Your task to perform on an android device: Add usb-a to the cart on target Image 0: 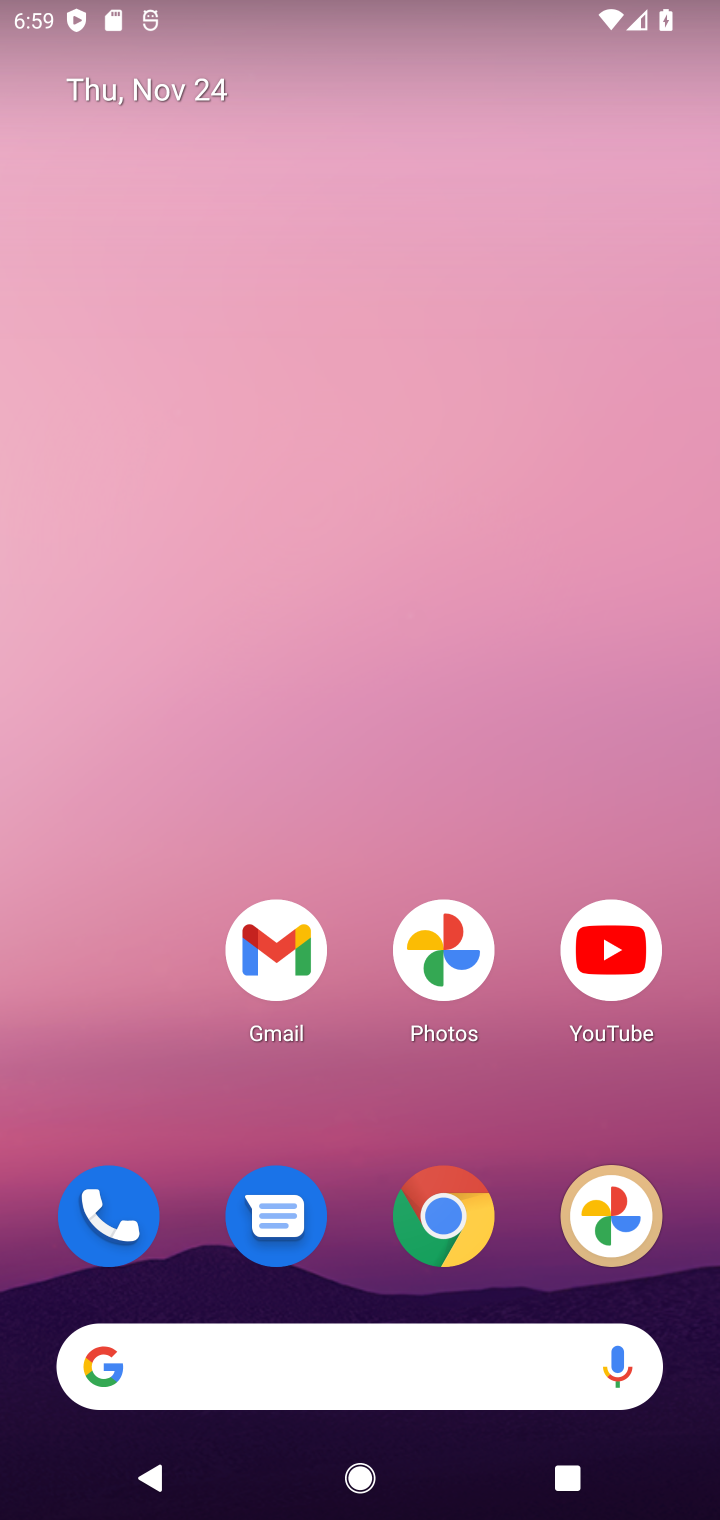
Step 0: click (435, 1221)
Your task to perform on an android device: Add usb-a to the cart on target Image 1: 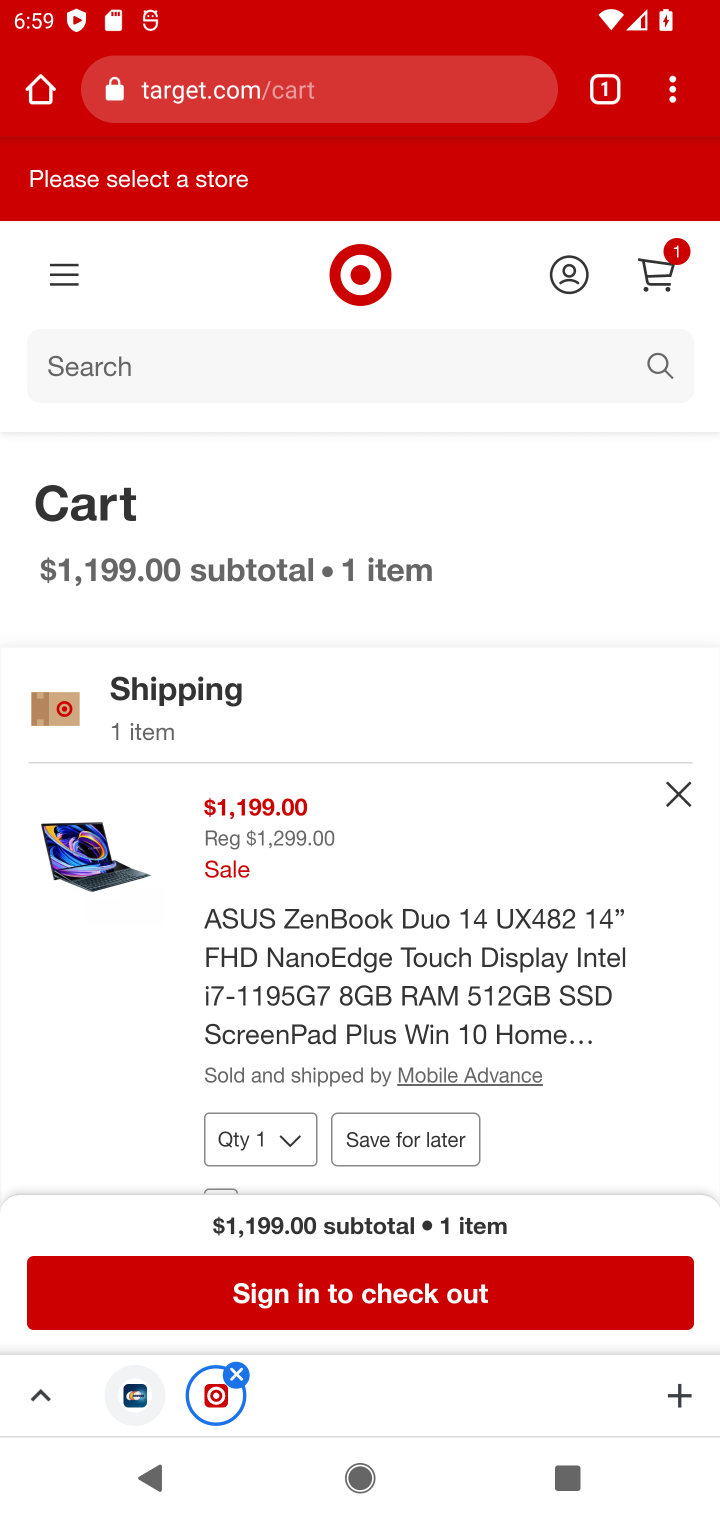
Step 1: click (357, 358)
Your task to perform on an android device: Add usb-a to the cart on target Image 2: 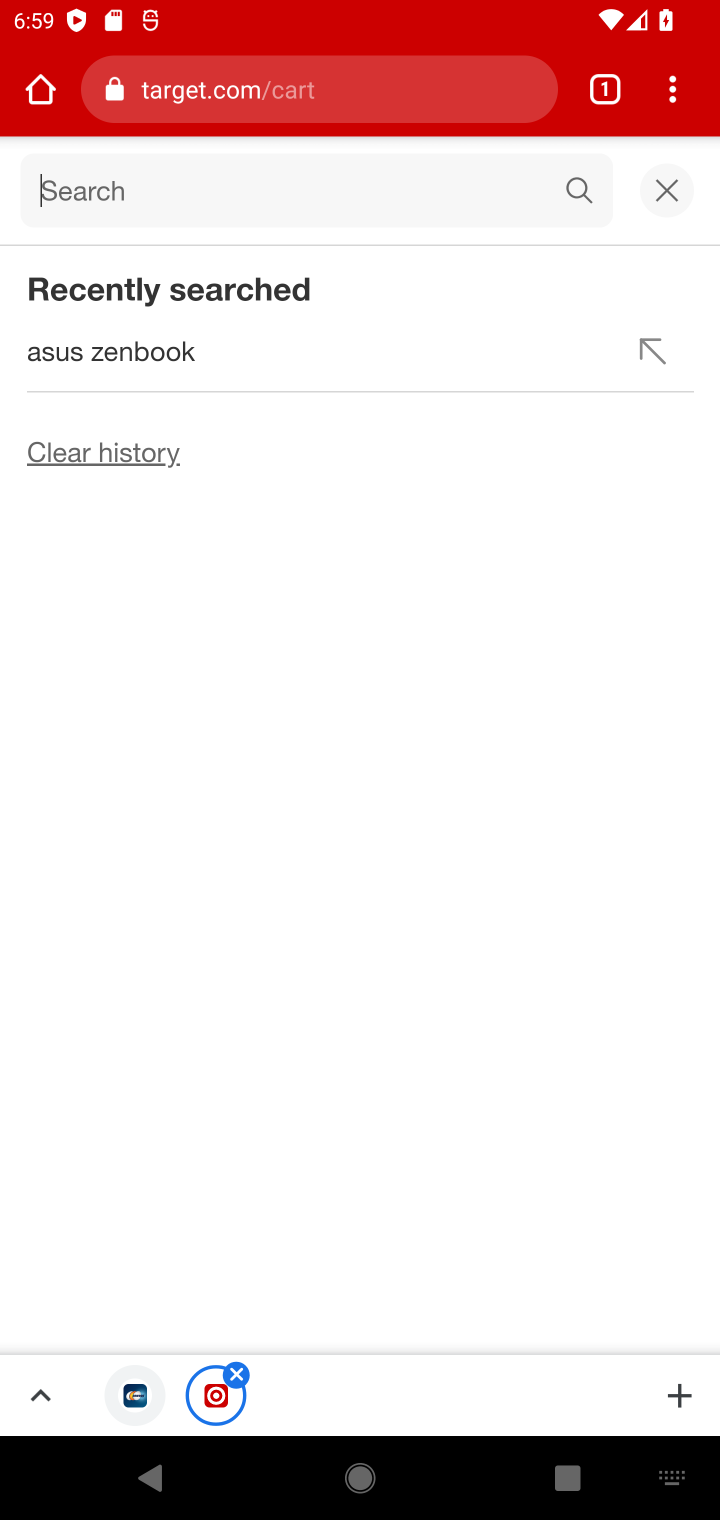
Step 2: type "usb-a"
Your task to perform on an android device: Add usb-a to the cart on target Image 3: 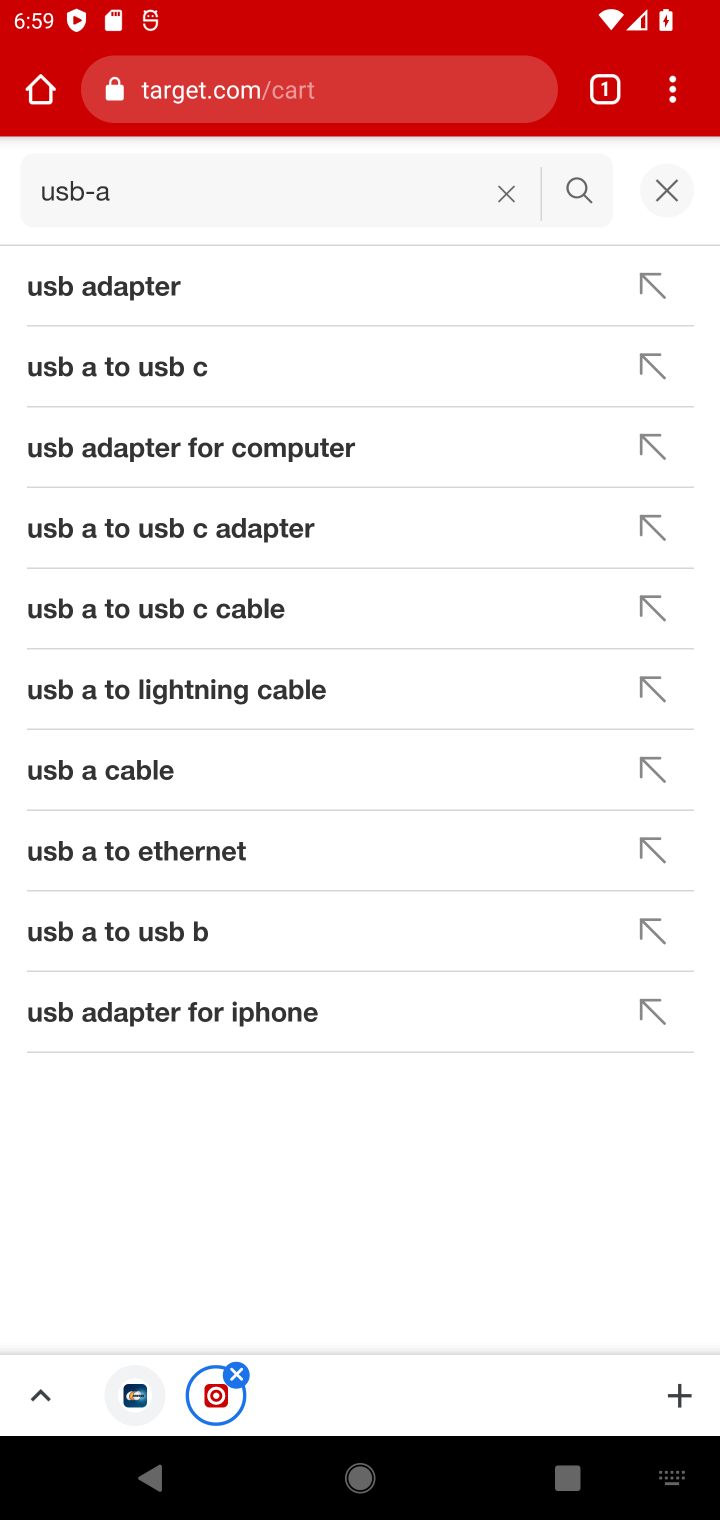
Step 3: click (116, 769)
Your task to perform on an android device: Add usb-a to the cart on target Image 4: 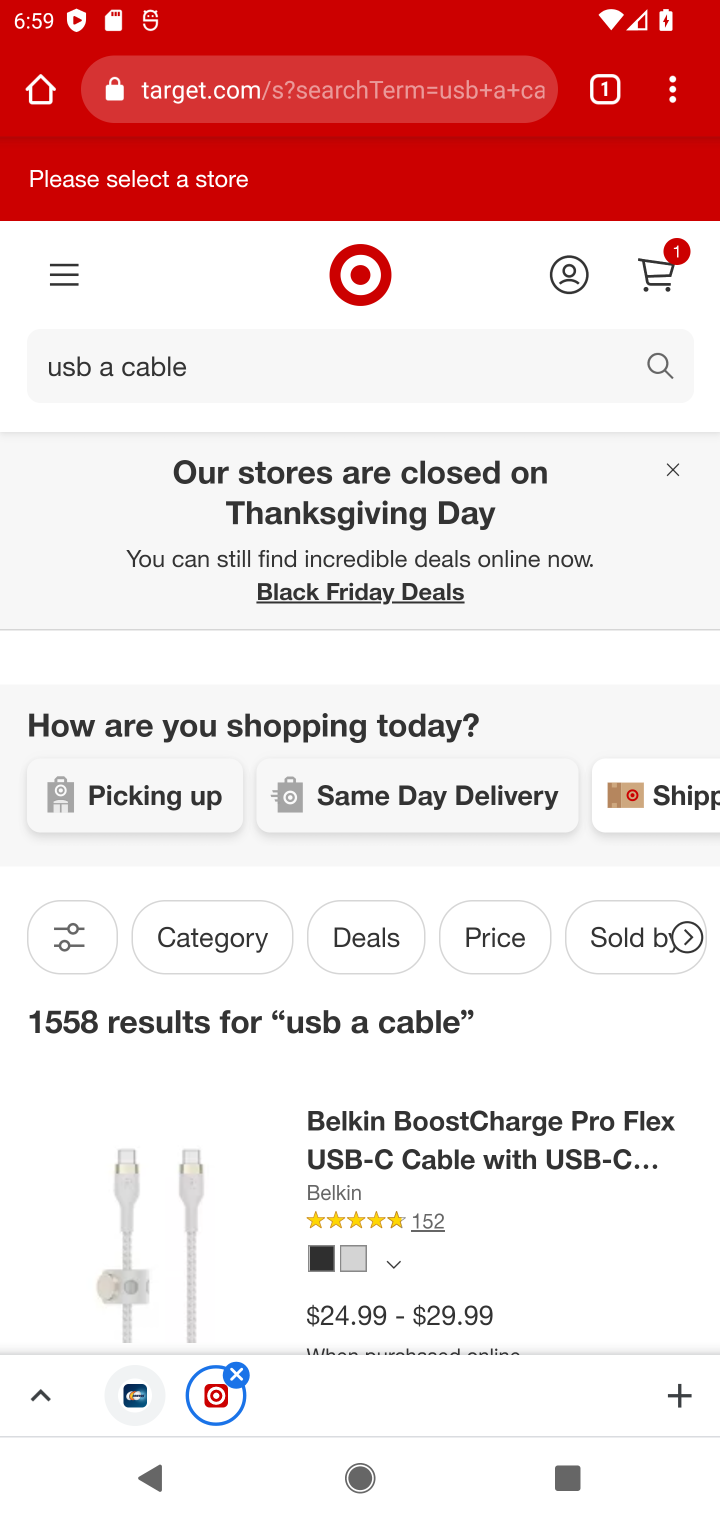
Step 4: drag from (459, 1194) to (459, 826)
Your task to perform on an android device: Add usb-a to the cart on target Image 5: 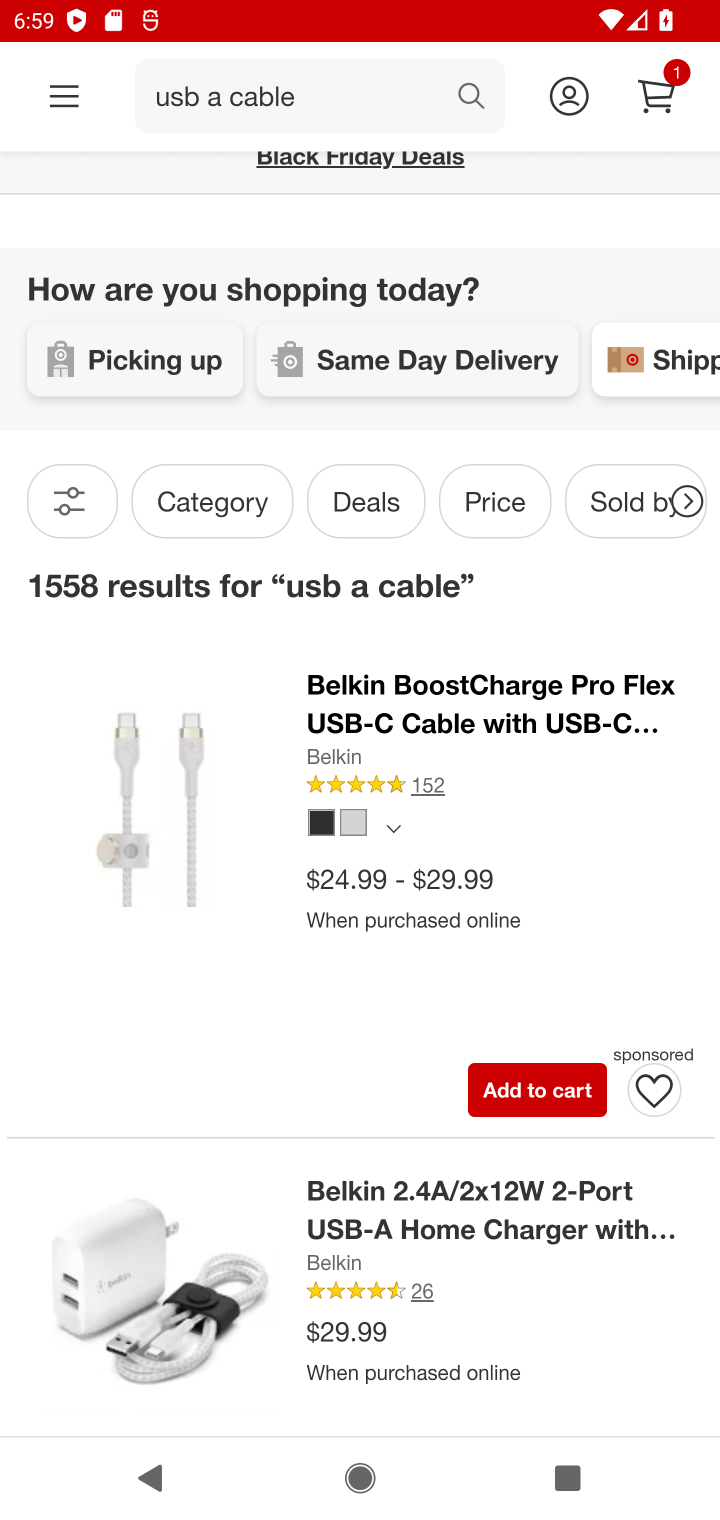
Step 5: drag from (431, 1180) to (452, 893)
Your task to perform on an android device: Add usb-a to the cart on target Image 6: 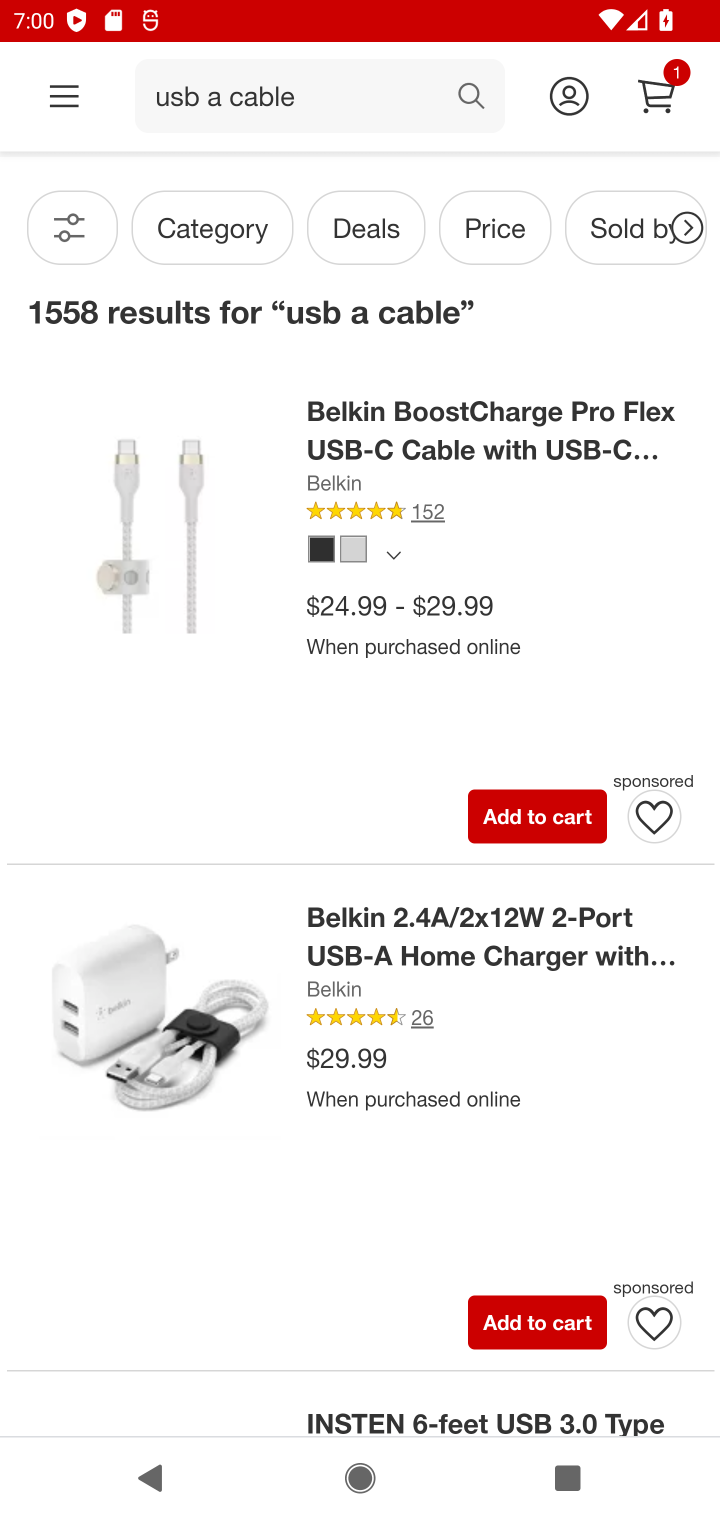
Step 6: click (519, 1319)
Your task to perform on an android device: Add usb-a to the cart on target Image 7: 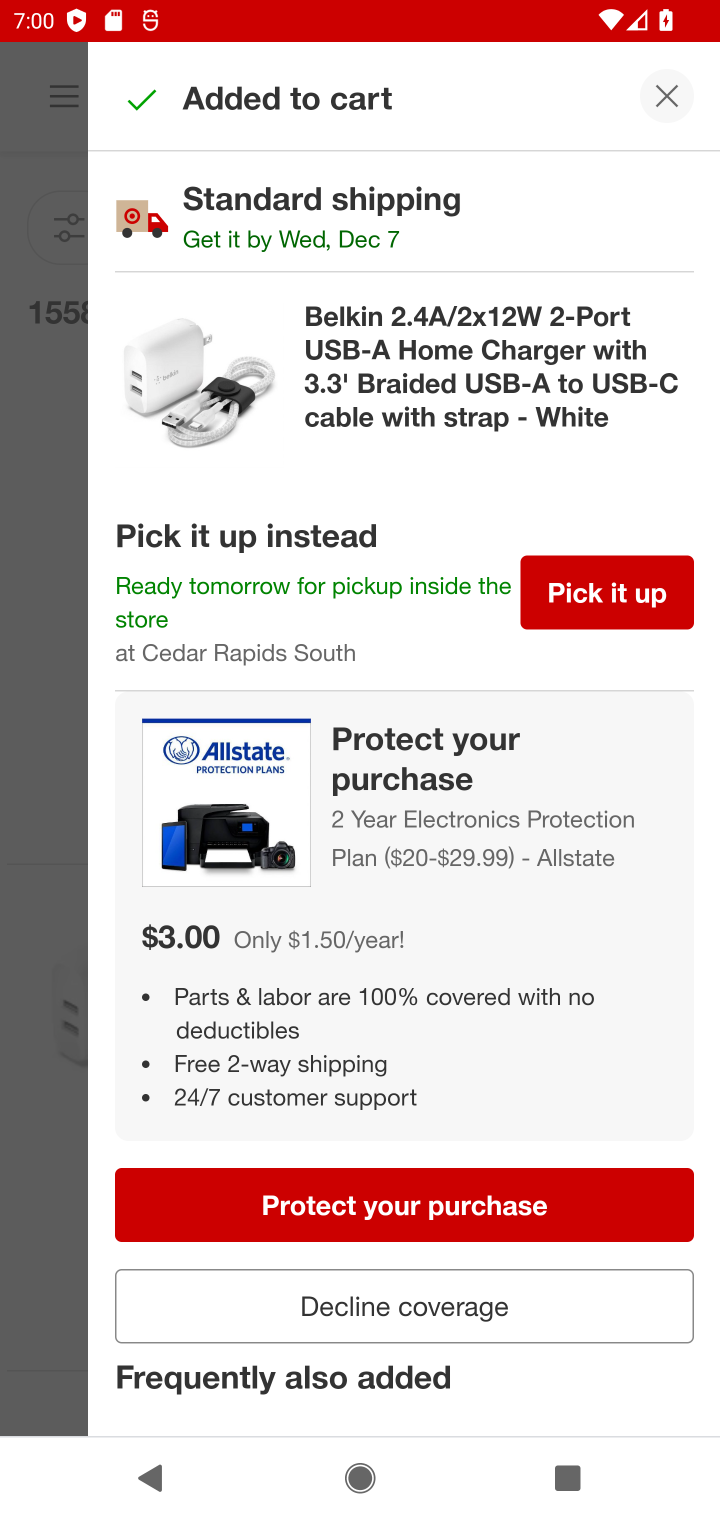
Step 7: click (491, 1306)
Your task to perform on an android device: Add usb-a to the cart on target Image 8: 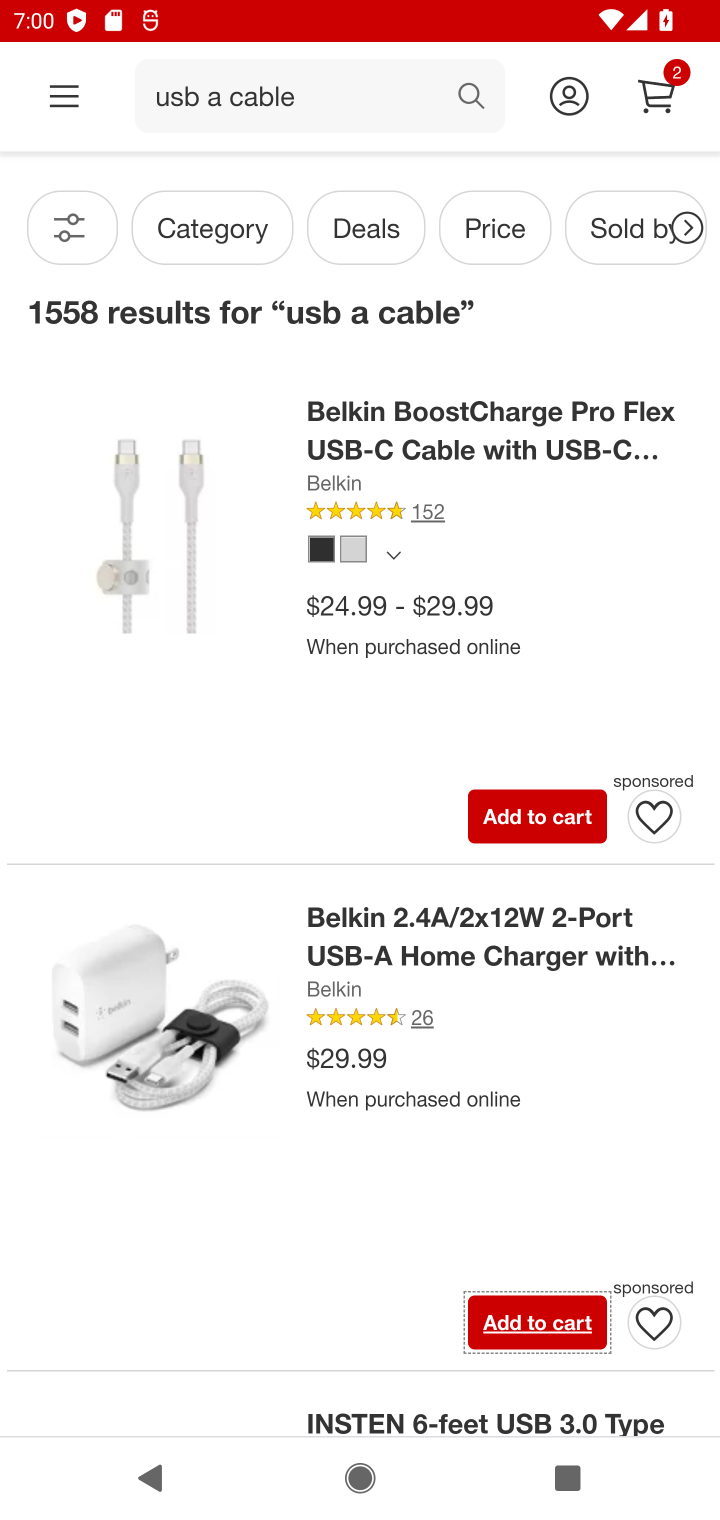
Step 8: task complete